Your task to perform on an android device: What is the capital of Mexico? Image 0: 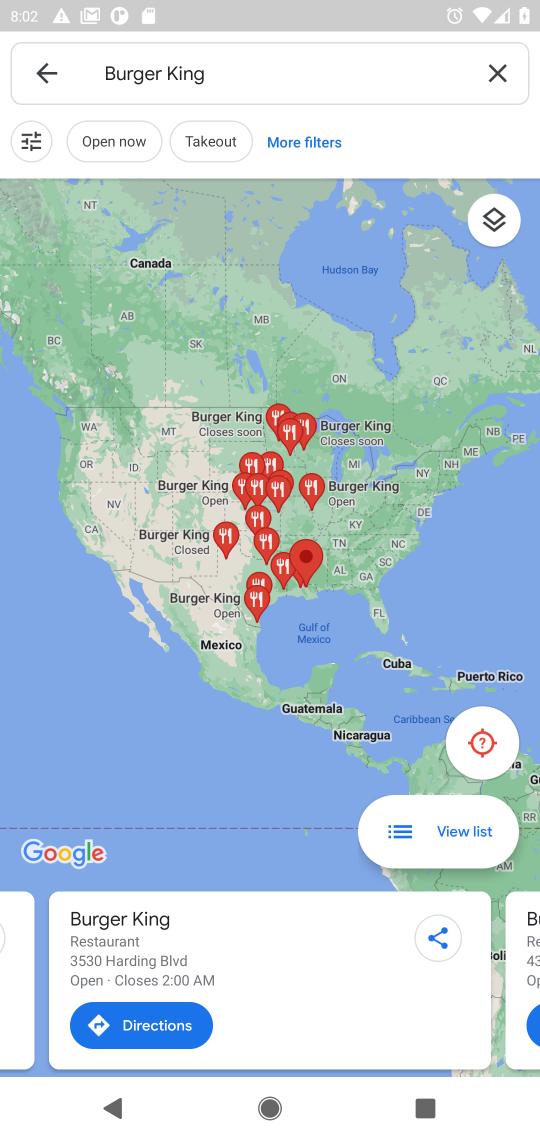
Step 0: press home button
Your task to perform on an android device: What is the capital of Mexico? Image 1: 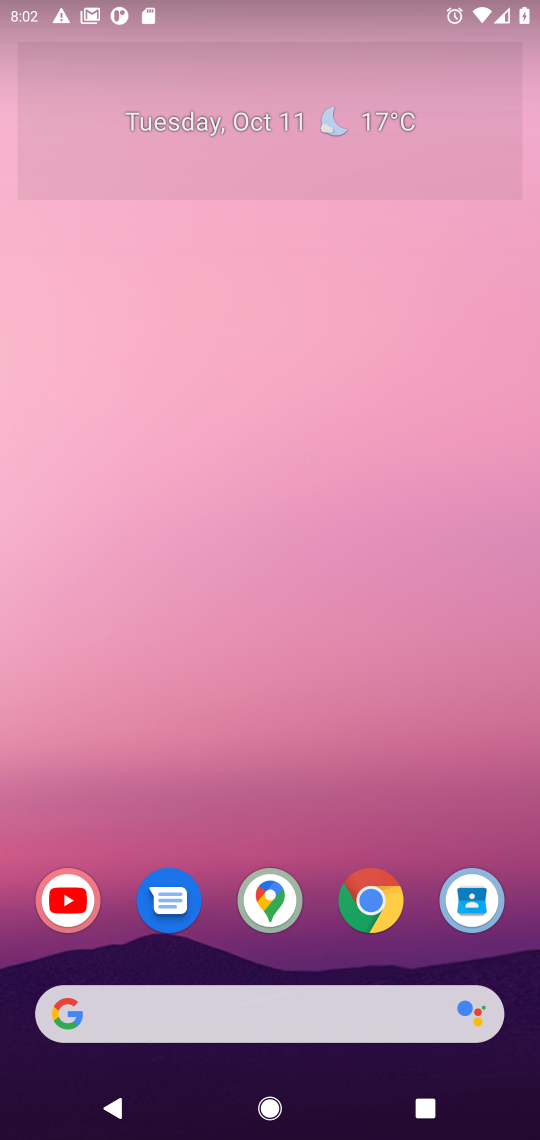
Step 1: click (368, 885)
Your task to perform on an android device: What is the capital of Mexico? Image 2: 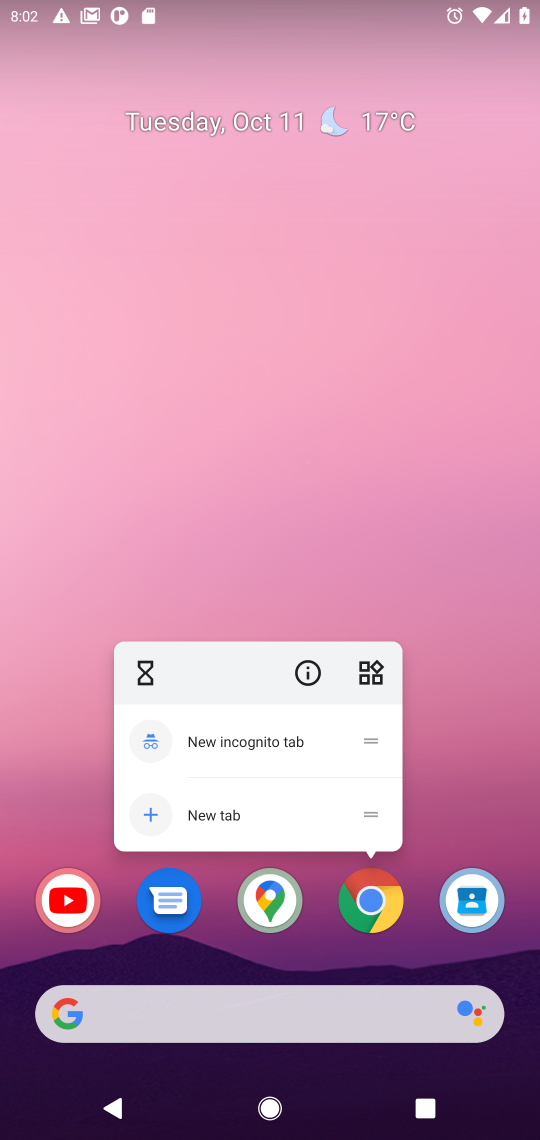
Step 2: click (361, 904)
Your task to perform on an android device: What is the capital of Mexico? Image 3: 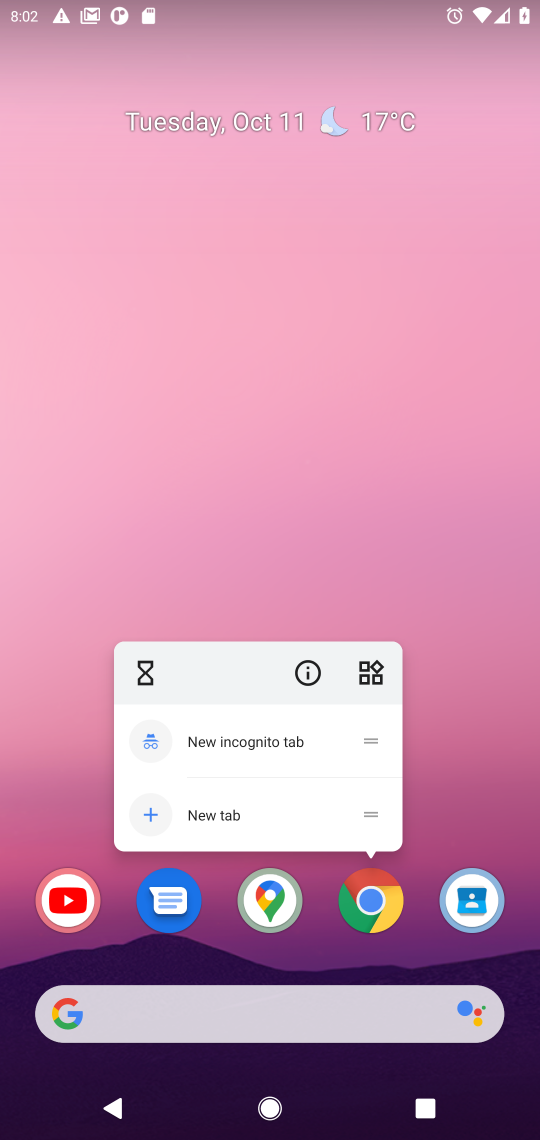
Step 3: click (361, 910)
Your task to perform on an android device: What is the capital of Mexico? Image 4: 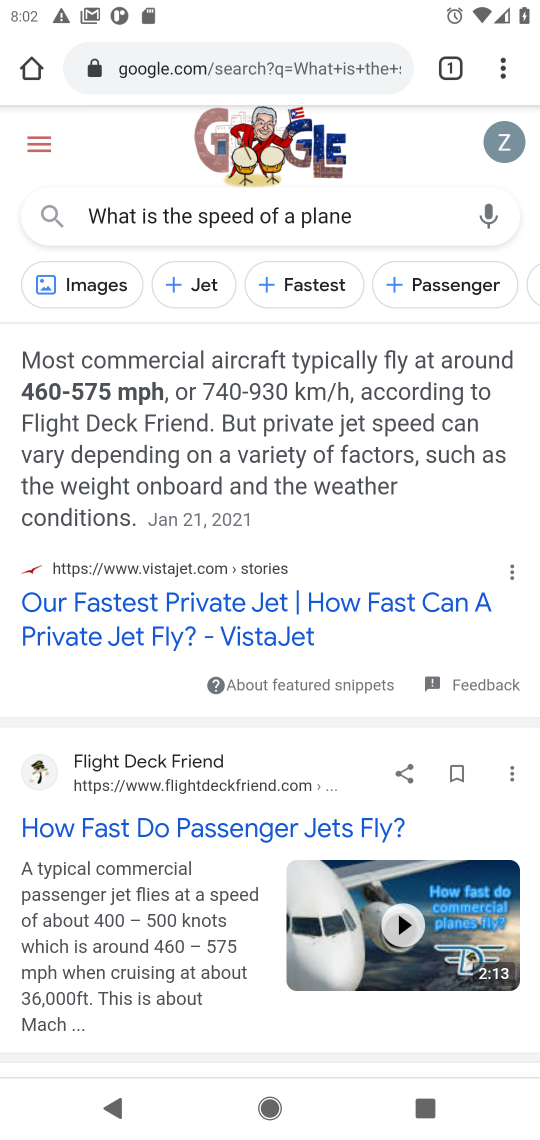
Step 4: click (306, 64)
Your task to perform on an android device: What is the capital of Mexico? Image 5: 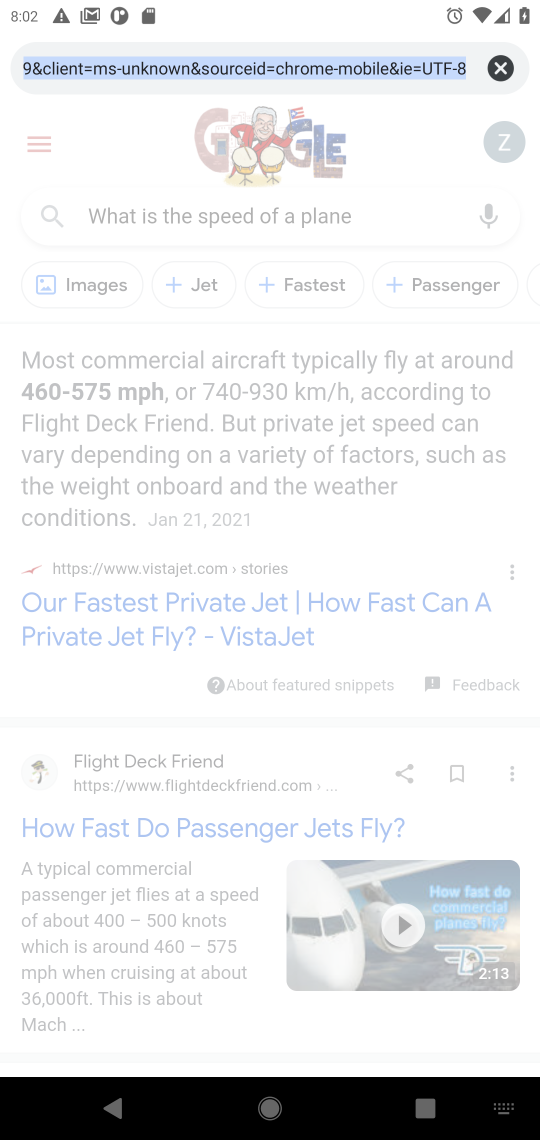
Step 5: click (496, 68)
Your task to perform on an android device: What is the capital of Mexico? Image 6: 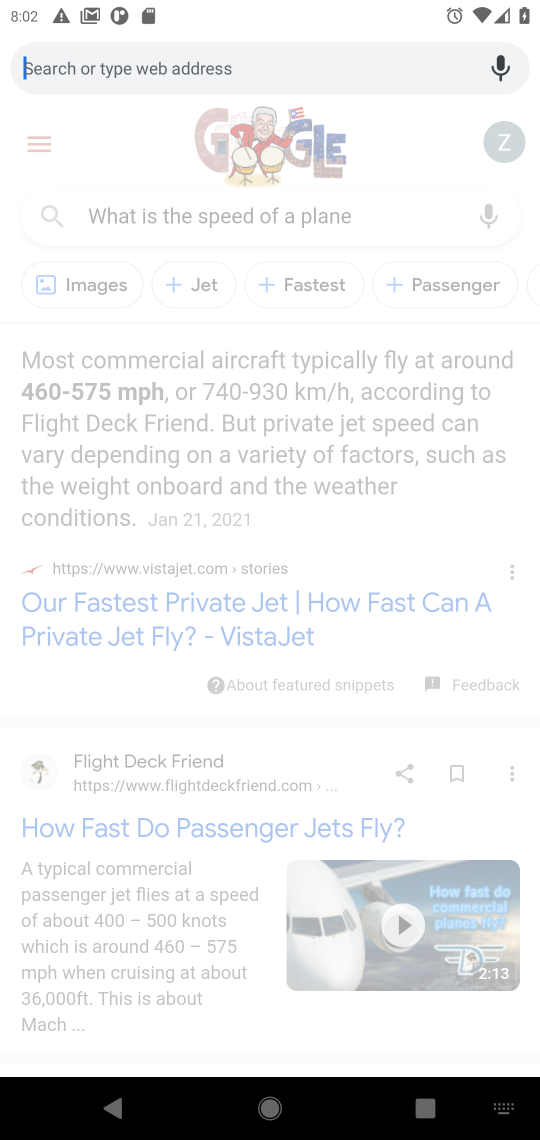
Step 6: type "capital of Mexico"
Your task to perform on an android device: What is the capital of Mexico? Image 7: 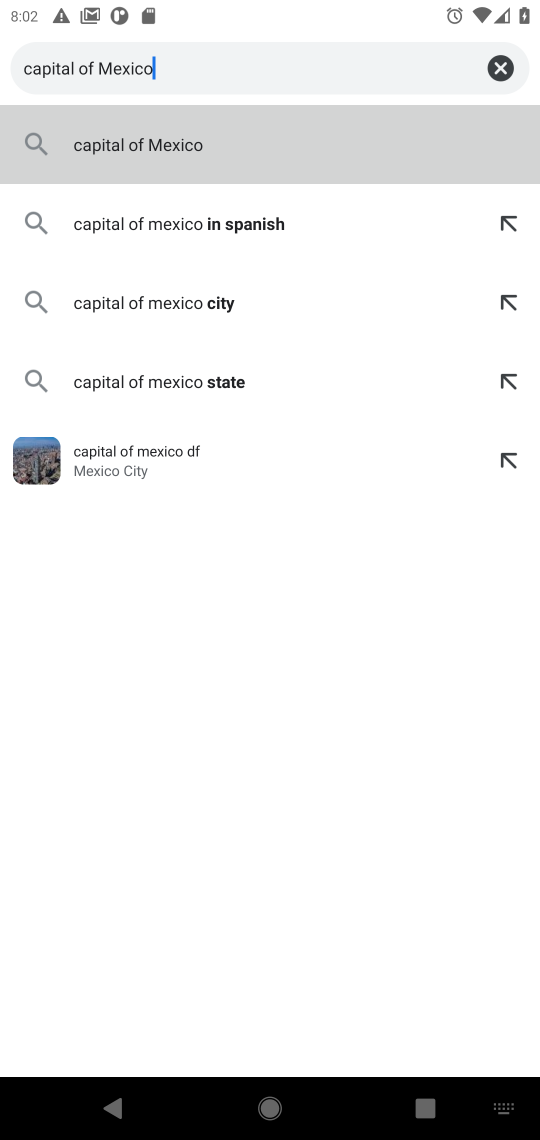
Step 7: press enter
Your task to perform on an android device: What is the capital of Mexico? Image 8: 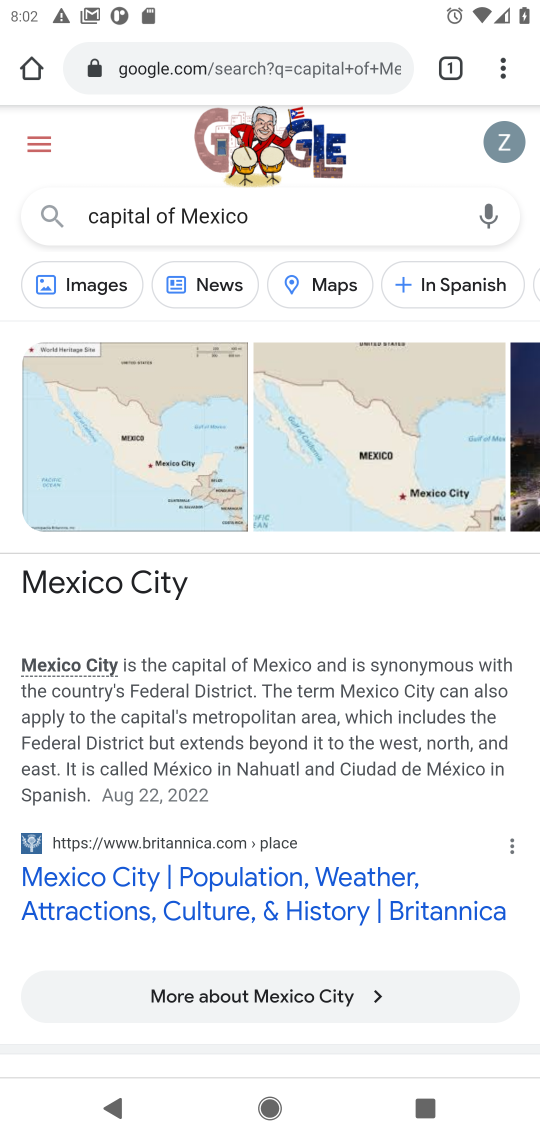
Step 8: drag from (293, 724) to (388, 354)
Your task to perform on an android device: What is the capital of Mexico? Image 9: 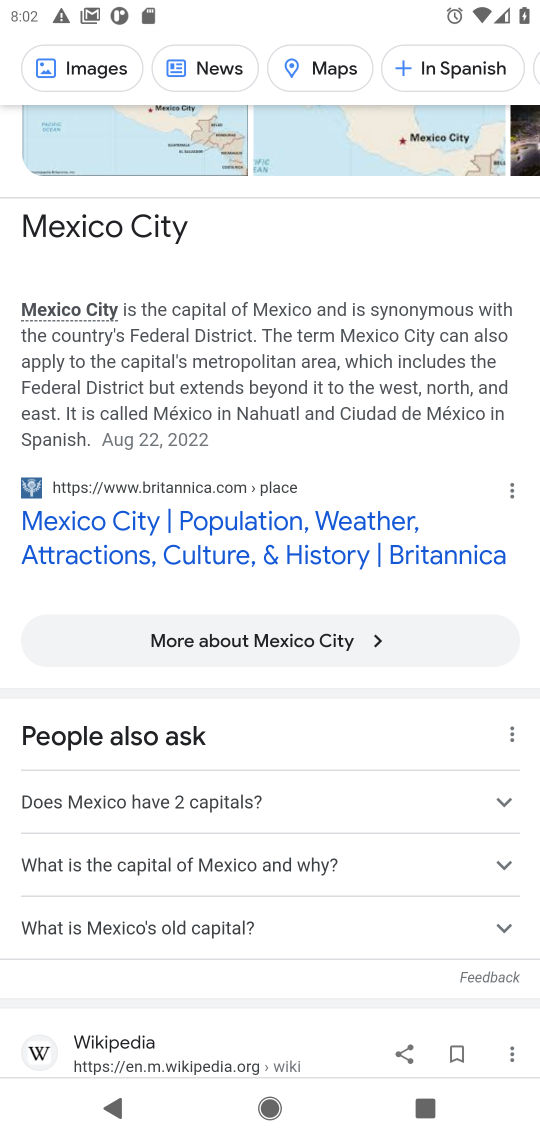
Step 9: click (264, 509)
Your task to perform on an android device: What is the capital of Mexico? Image 10: 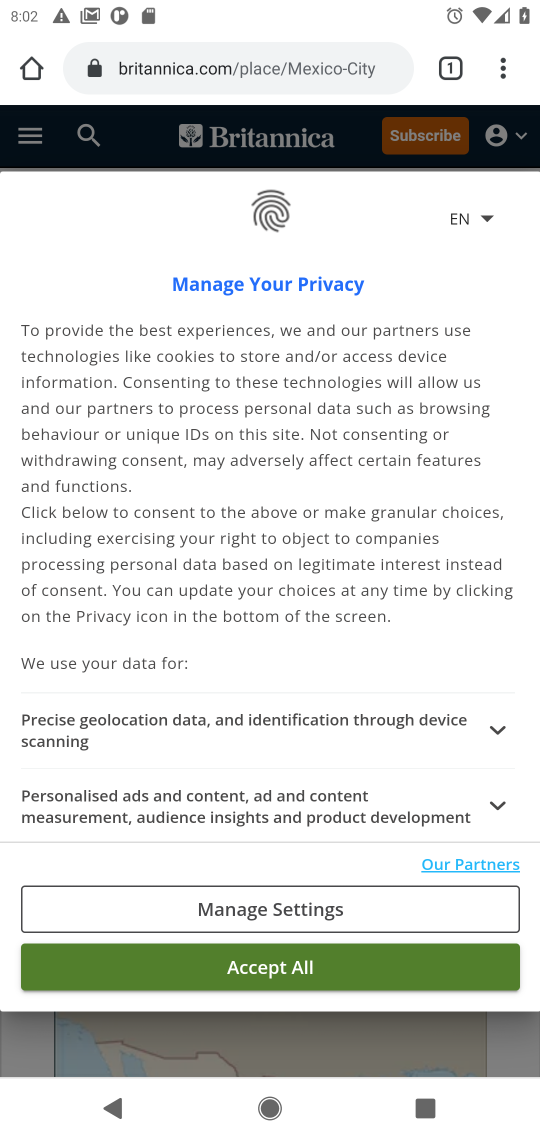
Step 10: click (245, 974)
Your task to perform on an android device: What is the capital of Mexico? Image 11: 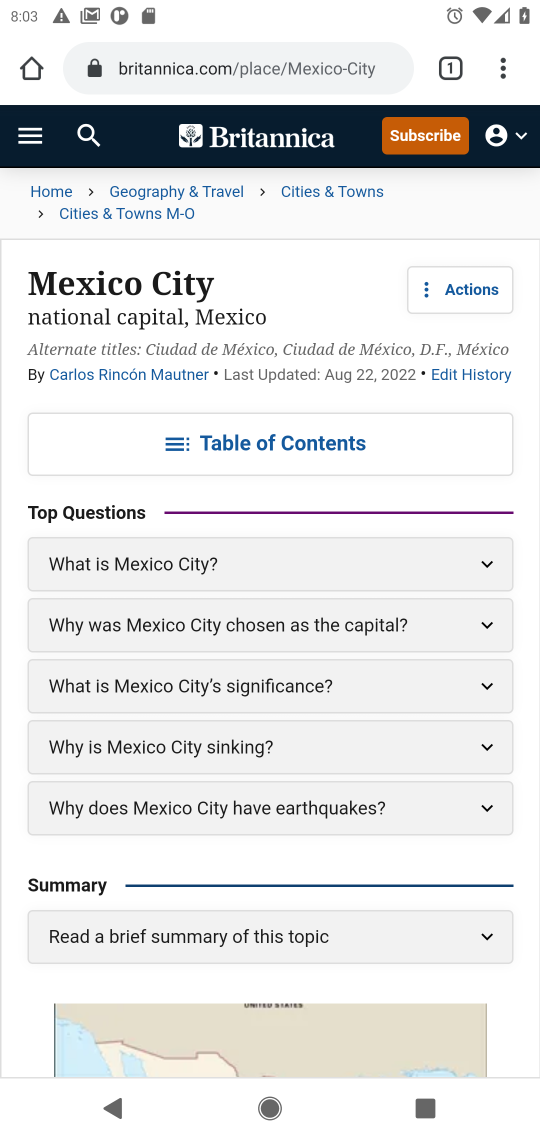
Step 11: task complete